Your task to perform on an android device: empty trash in the gmail app Image 0: 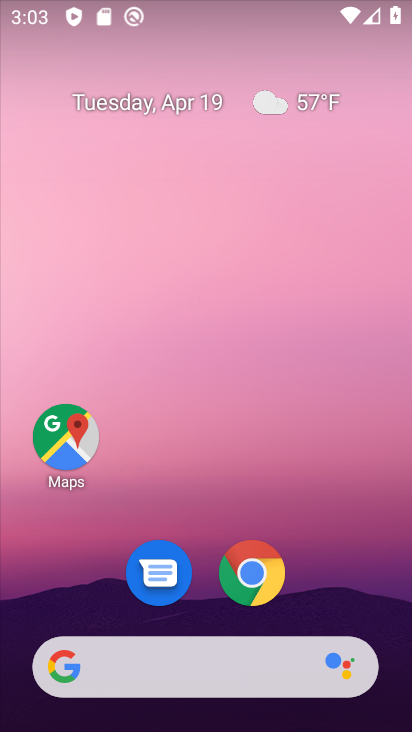
Step 0: drag from (353, 604) to (348, 18)
Your task to perform on an android device: empty trash in the gmail app Image 1: 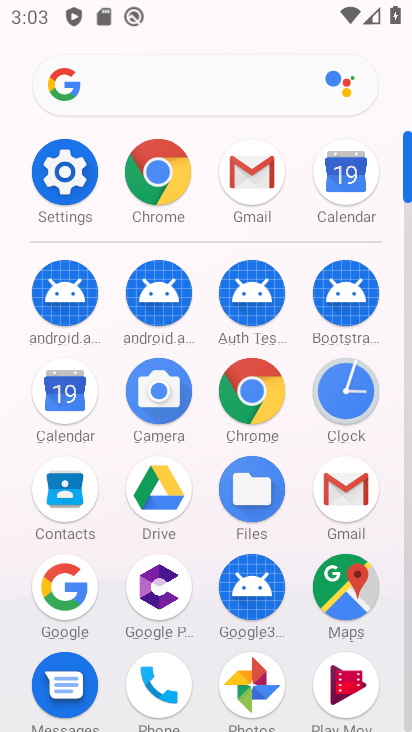
Step 1: click (252, 166)
Your task to perform on an android device: empty trash in the gmail app Image 2: 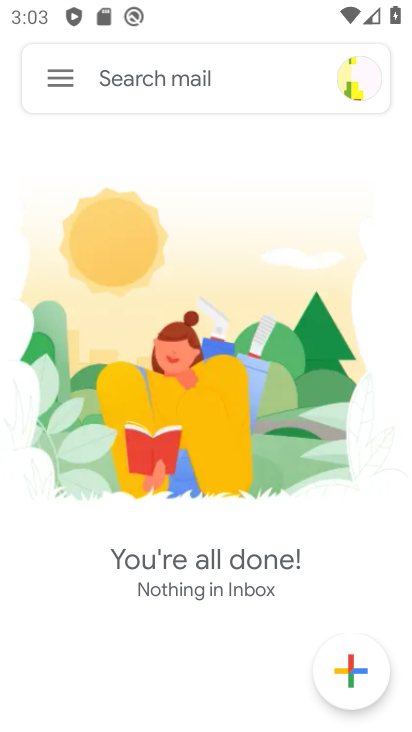
Step 2: click (54, 81)
Your task to perform on an android device: empty trash in the gmail app Image 3: 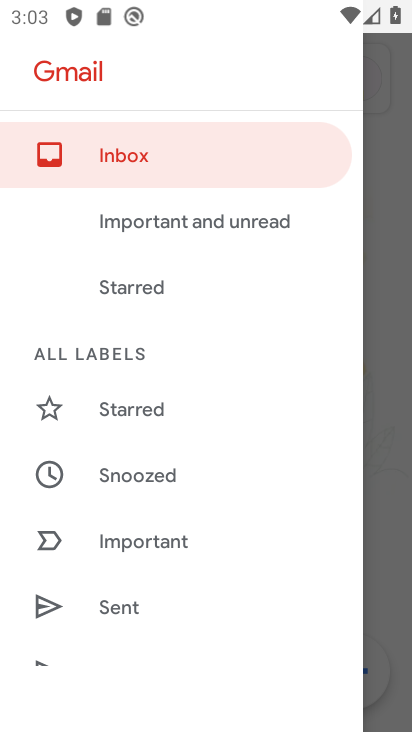
Step 3: drag from (215, 547) to (203, 300)
Your task to perform on an android device: empty trash in the gmail app Image 4: 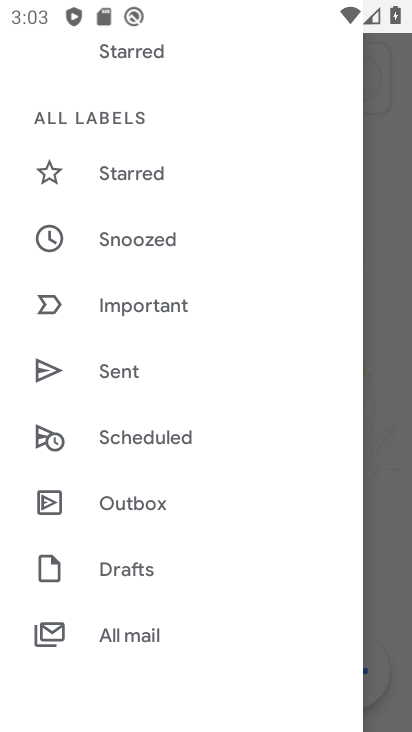
Step 4: drag from (220, 480) to (210, 236)
Your task to perform on an android device: empty trash in the gmail app Image 5: 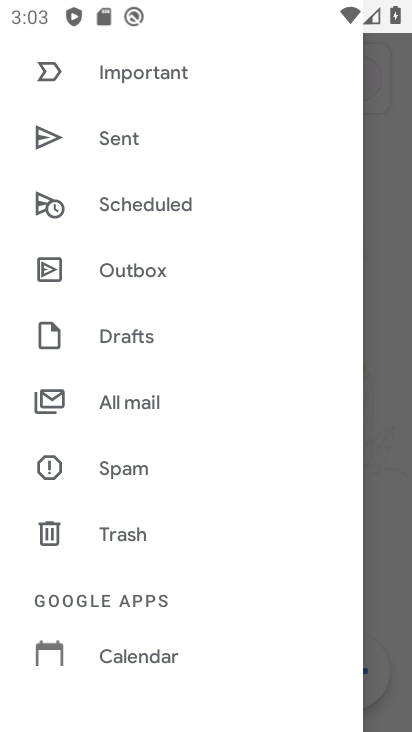
Step 5: click (117, 533)
Your task to perform on an android device: empty trash in the gmail app Image 6: 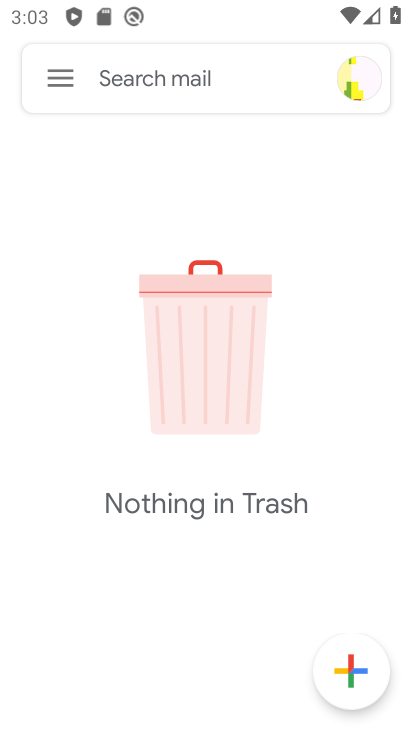
Step 6: task complete